Your task to perform on an android device: Play the last video I watched on Youtube Image 0: 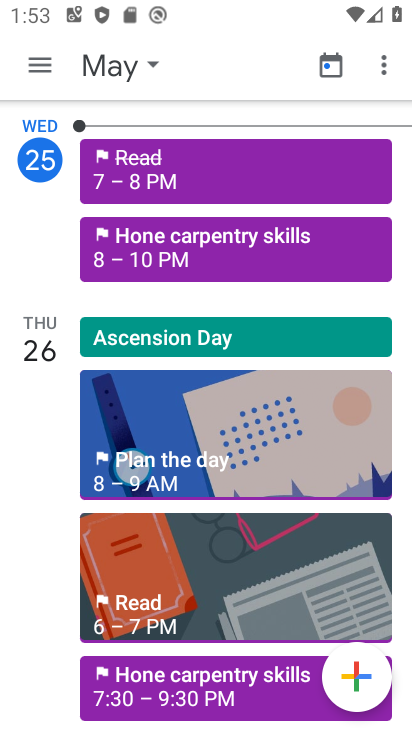
Step 0: press home button
Your task to perform on an android device: Play the last video I watched on Youtube Image 1: 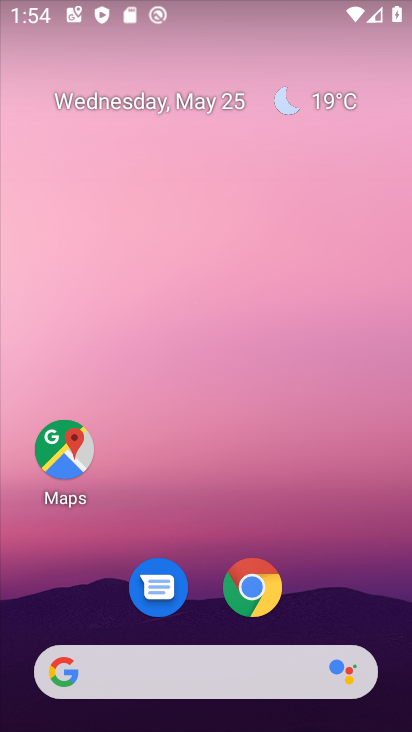
Step 1: drag from (197, 520) to (218, 75)
Your task to perform on an android device: Play the last video I watched on Youtube Image 2: 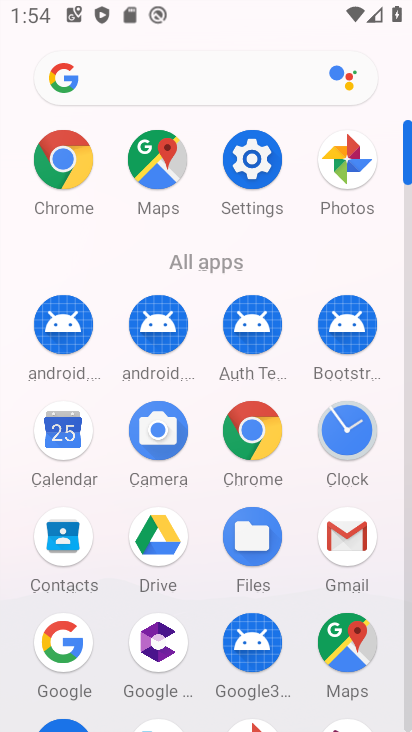
Step 2: drag from (307, 580) to (314, 68)
Your task to perform on an android device: Play the last video I watched on Youtube Image 3: 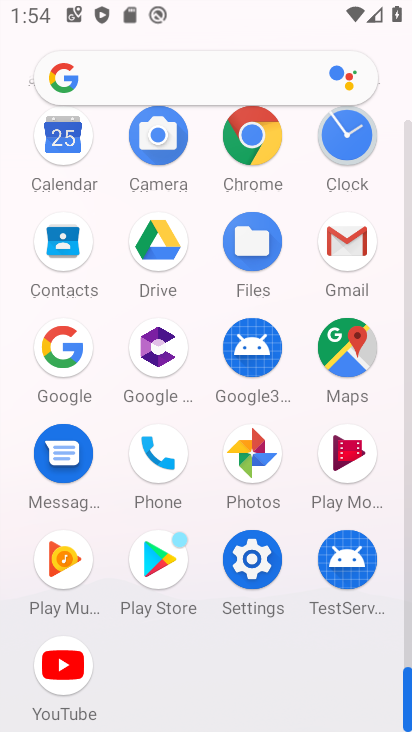
Step 3: click (65, 654)
Your task to perform on an android device: Play the last video I watched on Youtube Image 4: 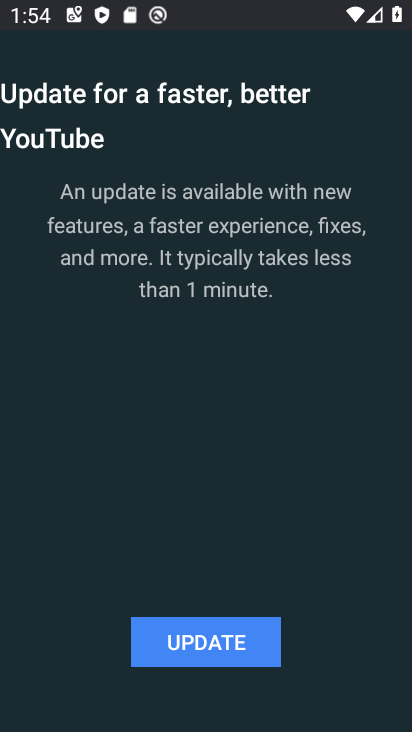
Step 4: click (204, 636)
Your task to perform on an android device: Play the last video I watched on Youtube Image 5: 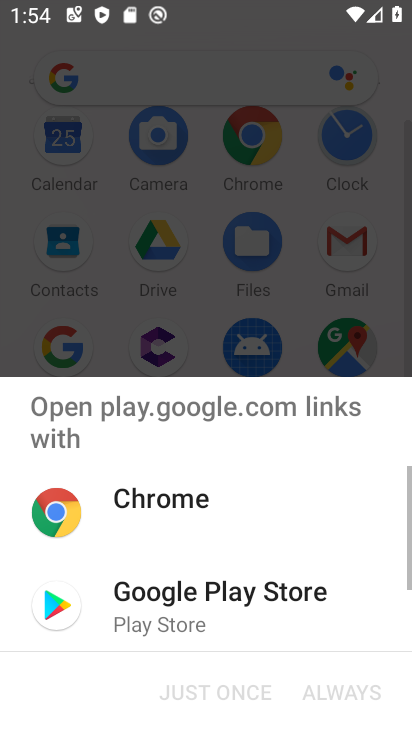
Step 5: click (167, 613)
Your task to perform on an android device: Play the last video I watched on Youtube Image 6: 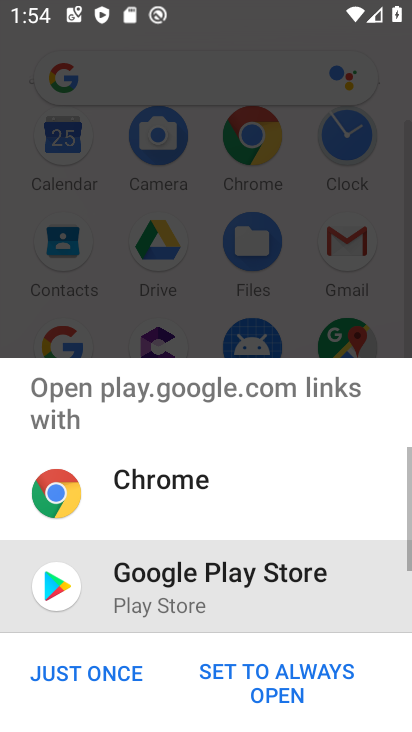
Step 6: click (94, 673)
Your task to perform on an android device: Play the last video I watched on Youtube Image 7: 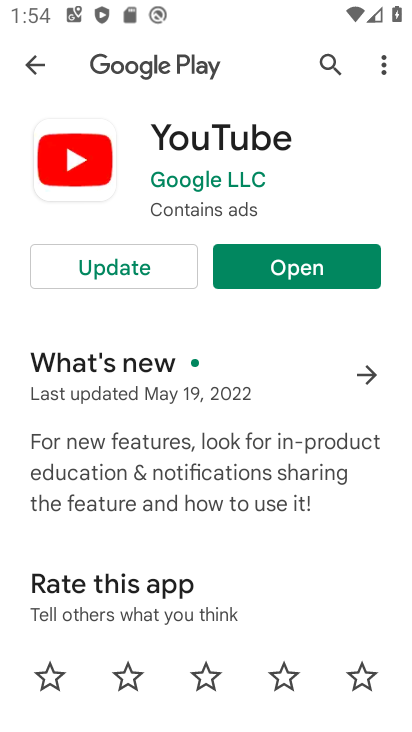
Step 7: click (282, 266)
Your task to perform on an android device: Play the last video I watched on Youtube Image 8: 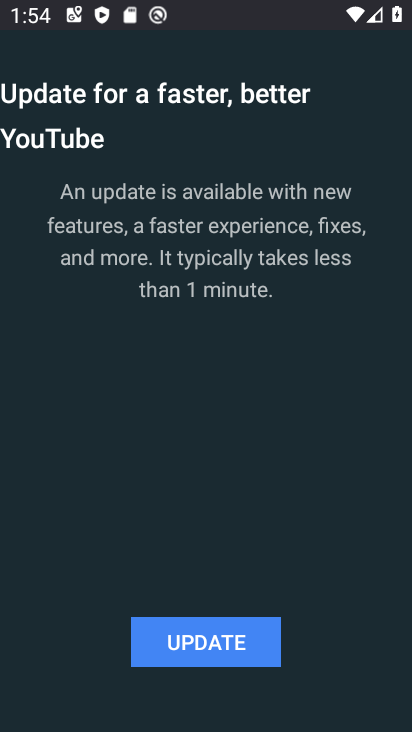
Step 8: click (222, 639)
Your task to perform on an android device: Play the last video I watched on Youtube Image 9: 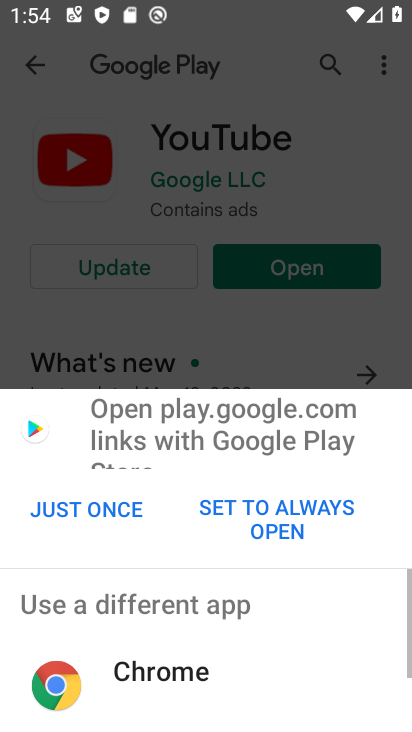
Step 9: click (109, 517)
Your task to perform on an android device: Play the last video I watched on Youtube Image 10: 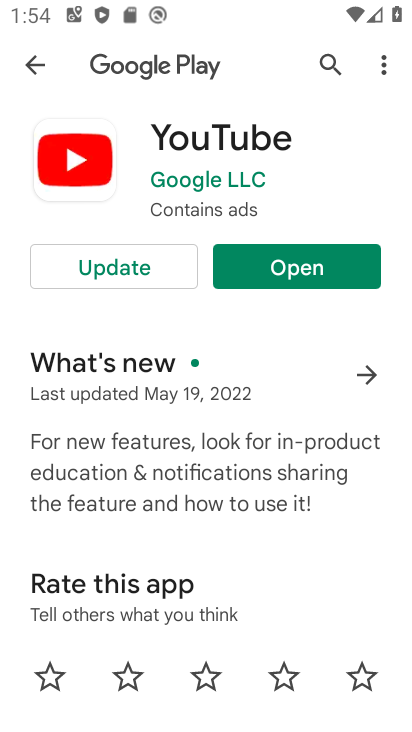
Step 10: click (155, 272)
Your task to perform on an android device: Play the last video I watched on Youtube Image 11: 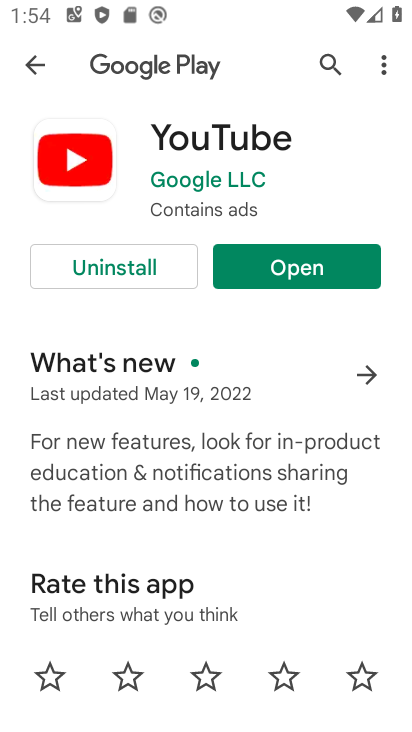
Step 11: click (301, 274)
Your task to perform on an android device: Play the last video I watched on Youtube Image 12: 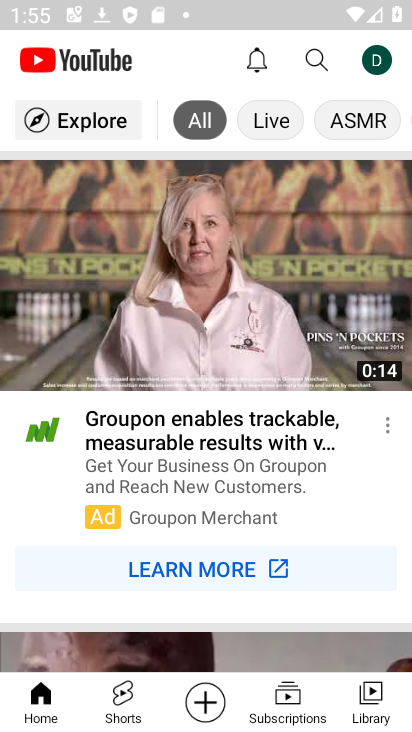
Step 12: click (316, 58)
Your task to perform on an android device: Play the last video I watched on Youtube Image 13: 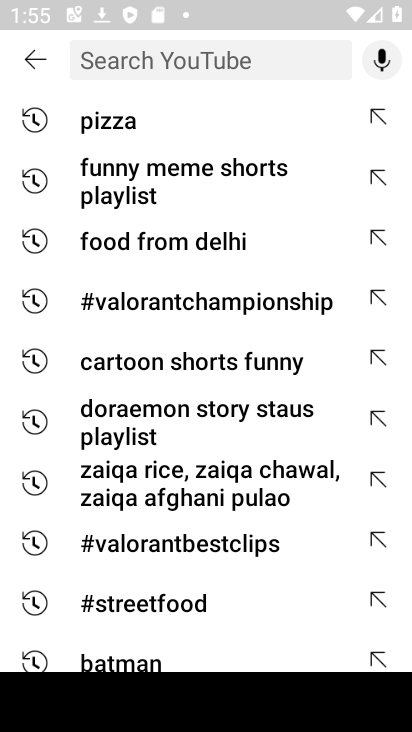
Step 13: click (128, 121)
Your task to perform on an android device: Play the last video I watched on Youtube Image 14: 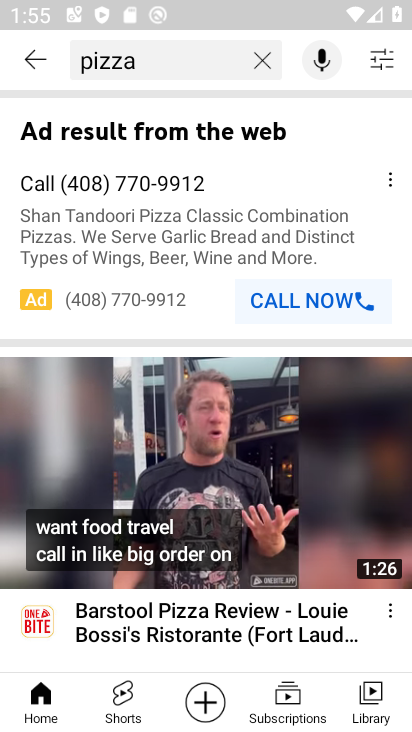
Step 14: click (337, 432)
Your task to perform on an android device: Play the last video I watched on Youtube Image 15: 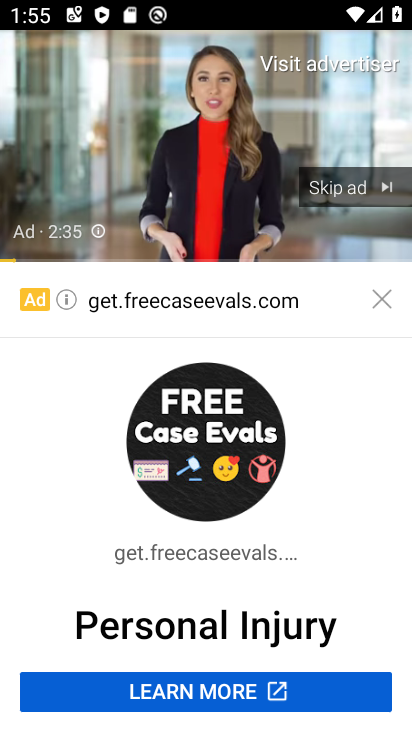
Step 15: click (342, 193)
Your task to perform on an android device: Play the last video I watched on Youtube Image 16: 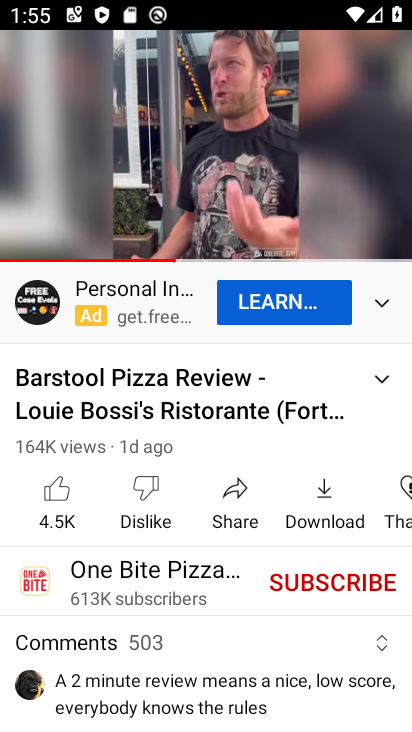
Step 16: task complete